Your task to perform on an android device: Go to ESPN.com Image 0: 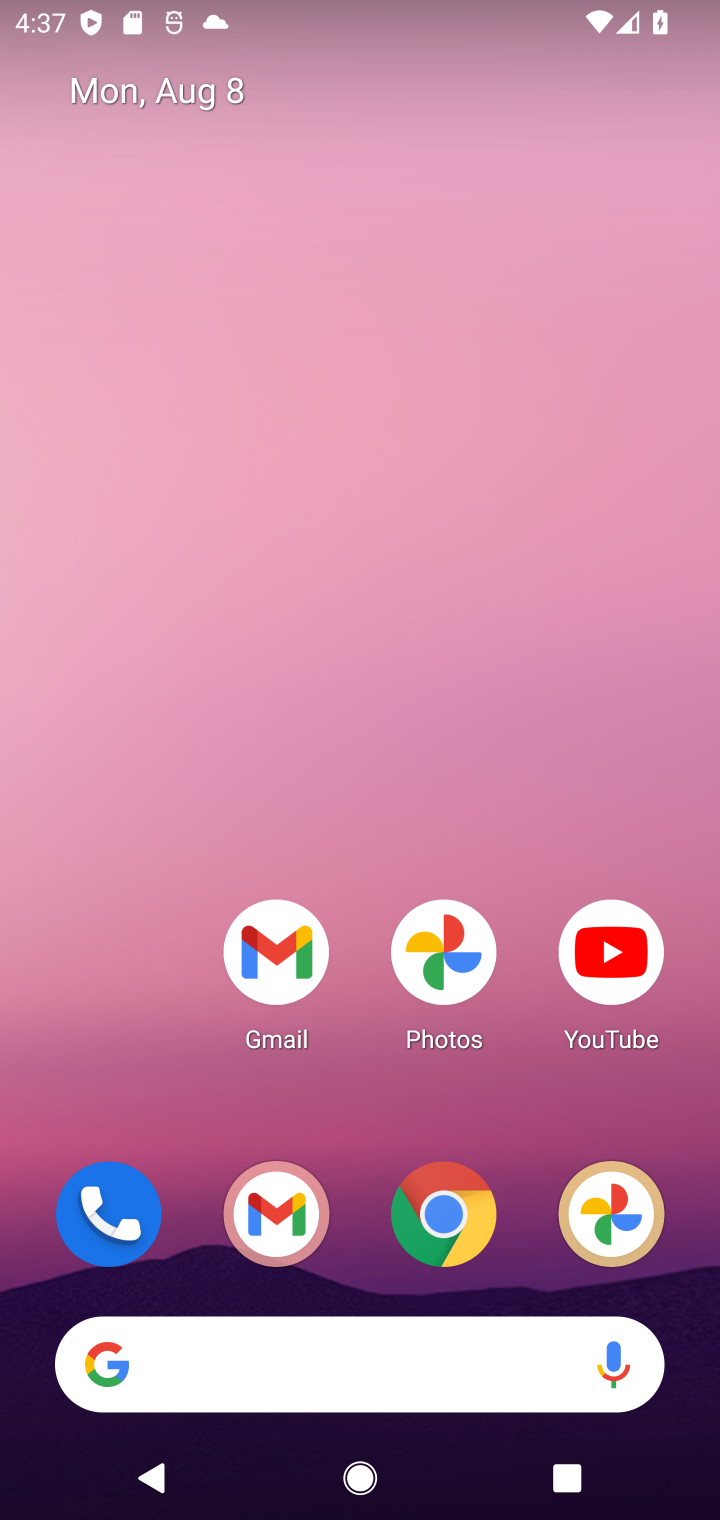
Step 0: click (443, 1216)
Your task to perform on an android device: Go to ESPN.com Image 1: 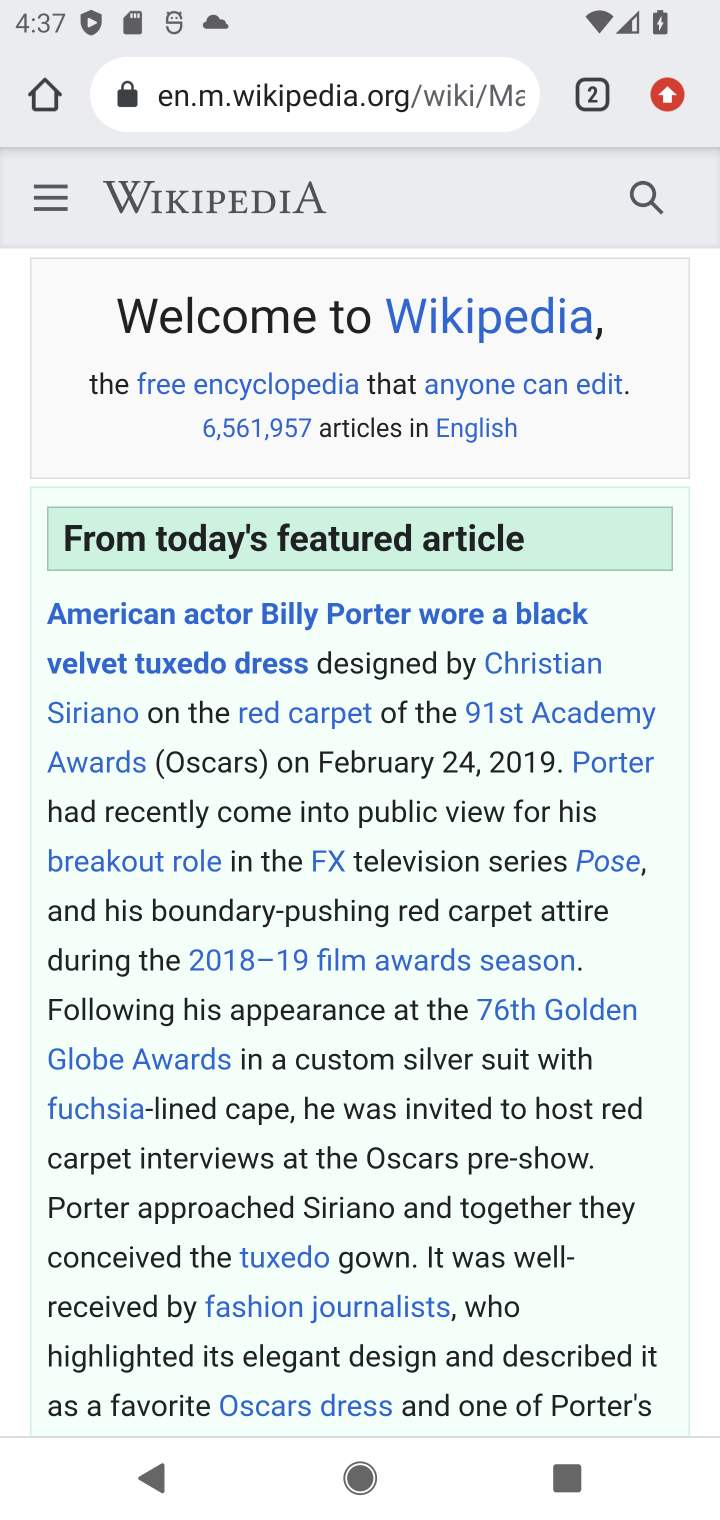
Step 1: click (658, 95)
Your task to perform on an android device: Go to ESPN.com Image 2: 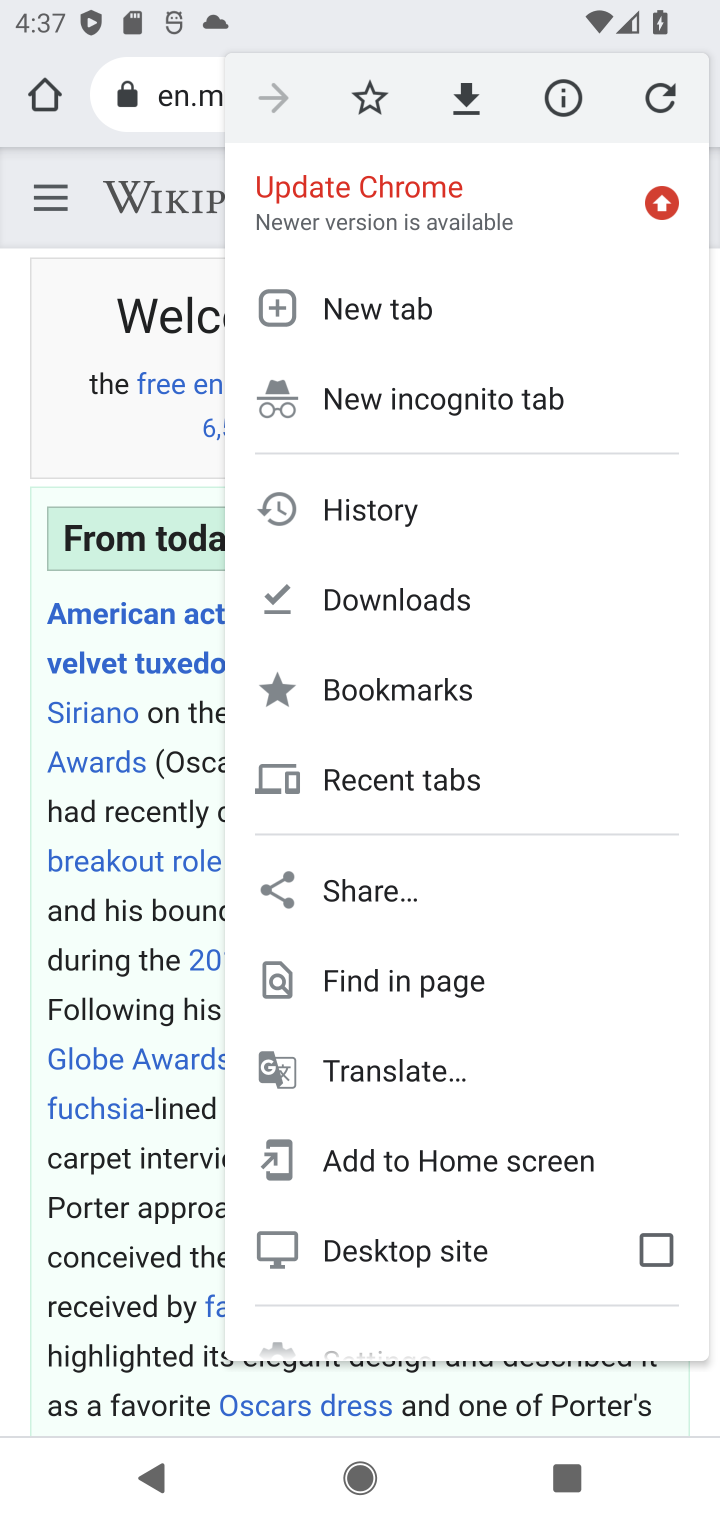
Step 2: click (363, 313)
Your task to perform on an android device: Go to ESPN.com Image 3: 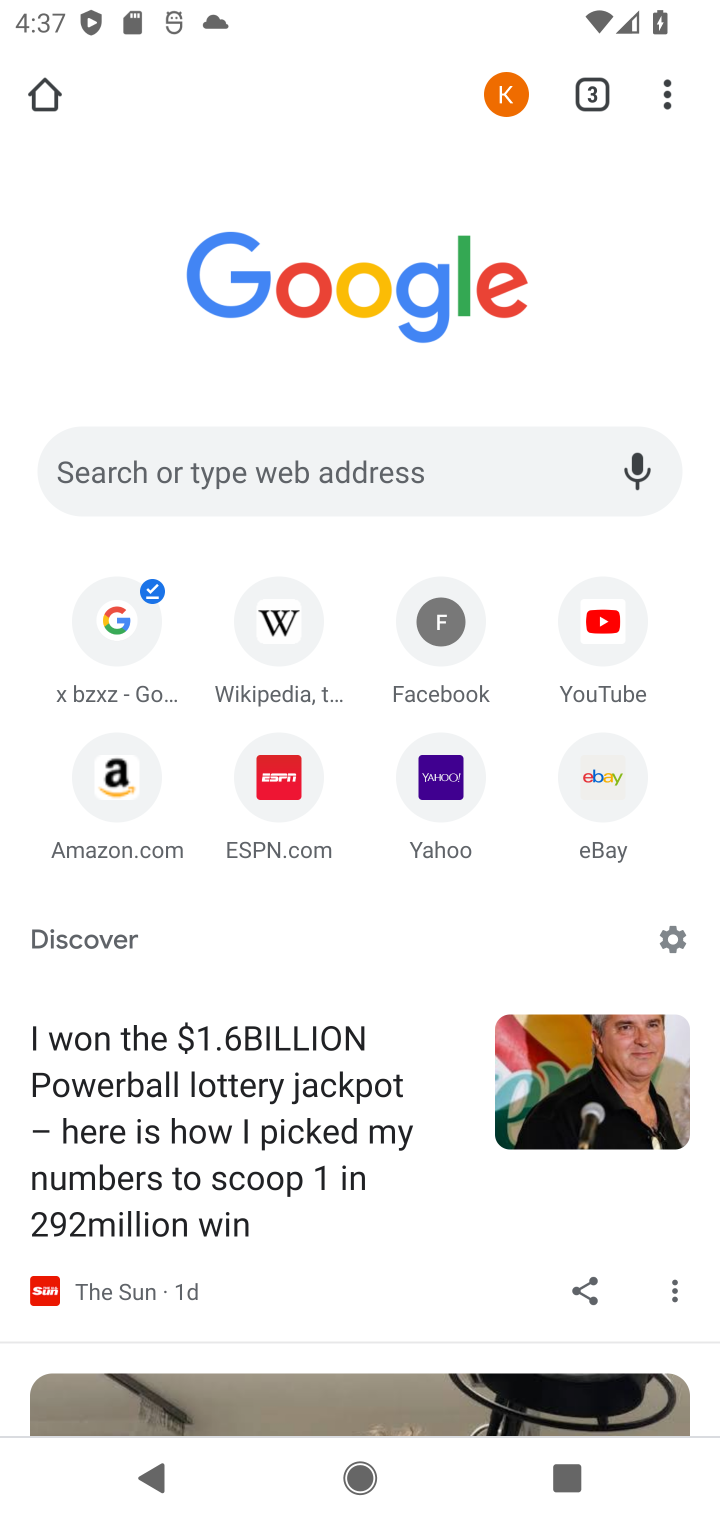
Step 3: click (274, 771)
Your task to perform on an android device: Go to ESPN.com Image 4: 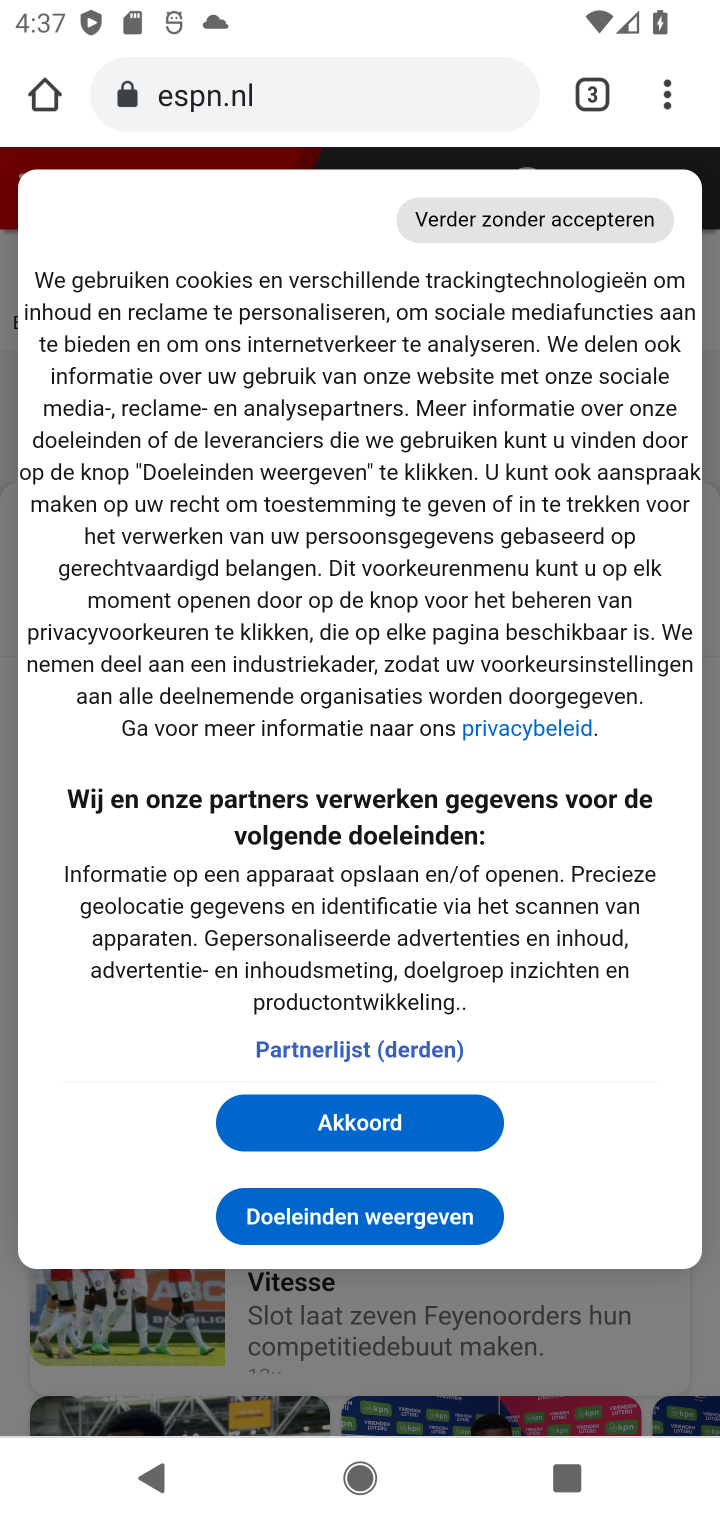
Step 4: click (407, 1122)
Your task to perform on an android device: Go to ESPN.com Image 5: 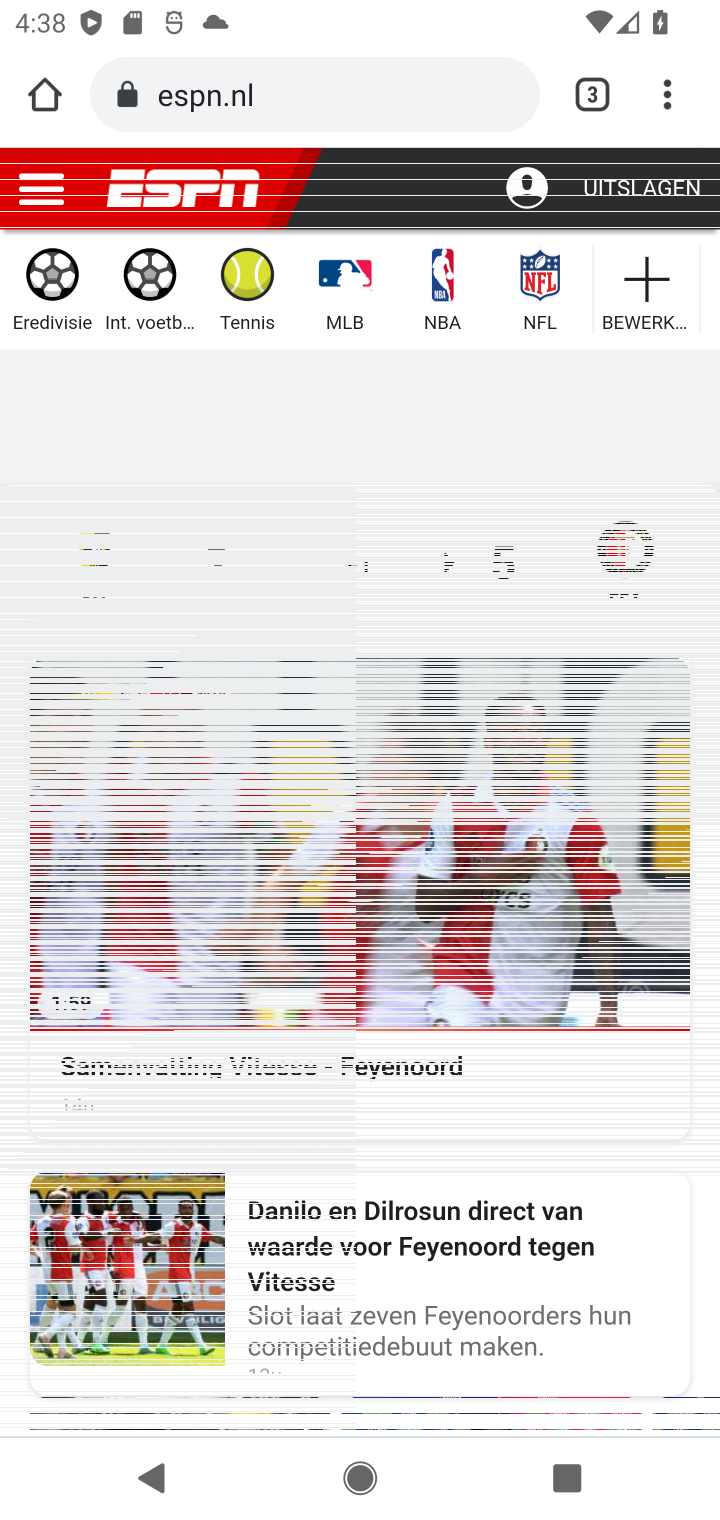
Step 5: task complete